Your task to perform on an android device: all mails in gmail Image 0: 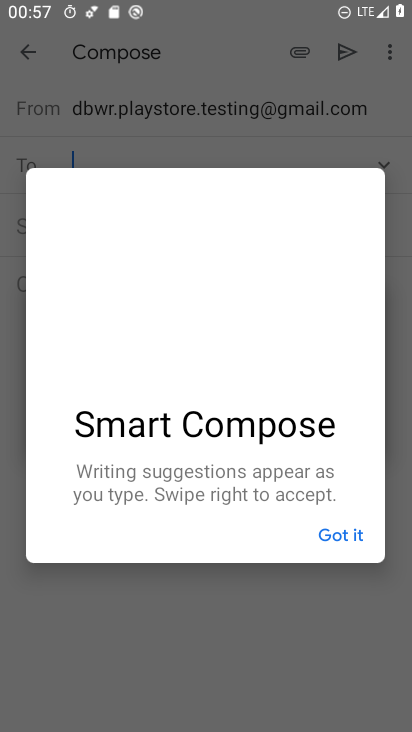
Step 0: press home button
Your task to perform on an android device: all mails in gmail Image 1: 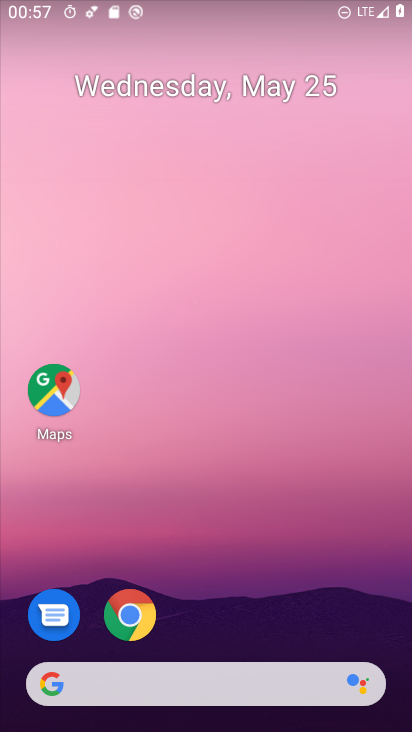
Step 1: drag from (269, 698) to (386, 4)
Your task to perform on an android device: all mails in gmail Image 2: 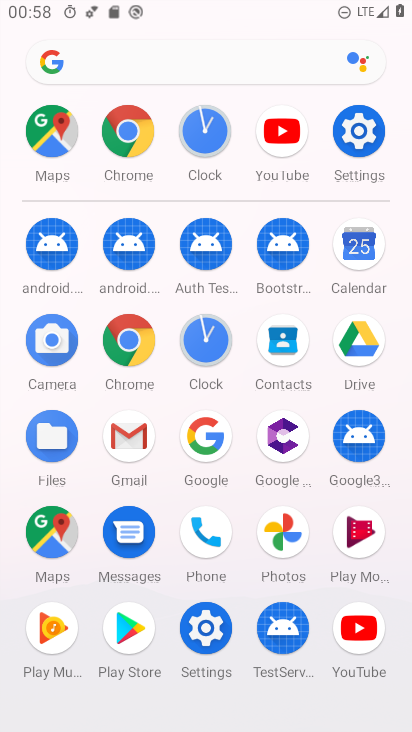
Step 2: click (121, 441)
Your task to perform on an android device: all mails in gmail Image 3: 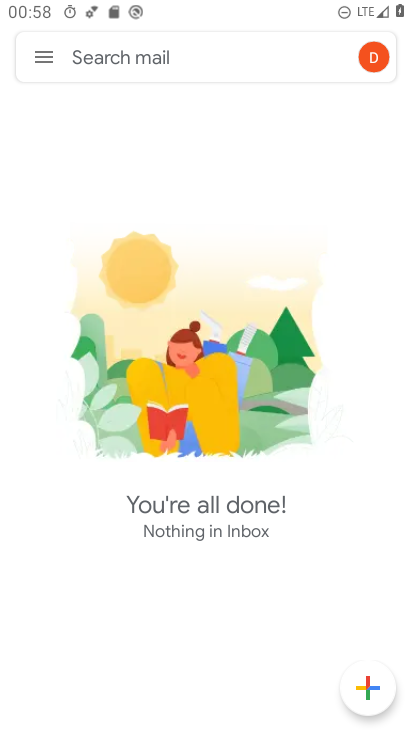
Step 3: click (41, 48)
Your task to perform on an android device: all mails in gmail Image 4: 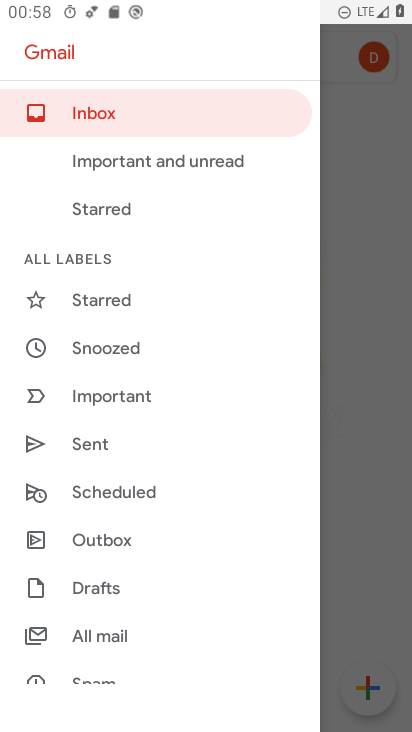
Step 4: click (93, 632)
Your task to perform on an android device: all mails in gmail Image 5: 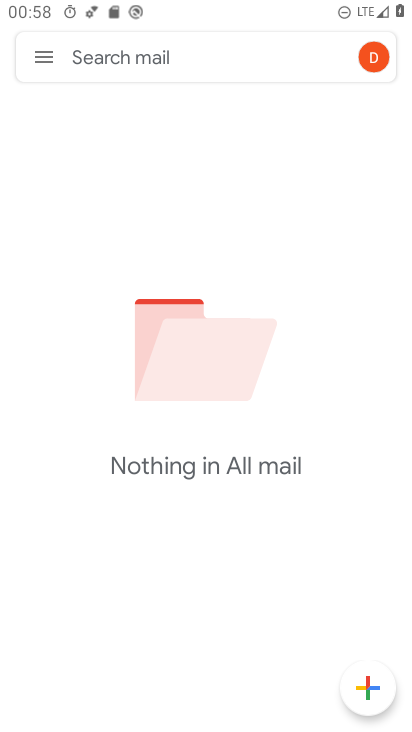
Step 5: task complete